Your task to perform on an android device: turn on airplane mode Image 0: 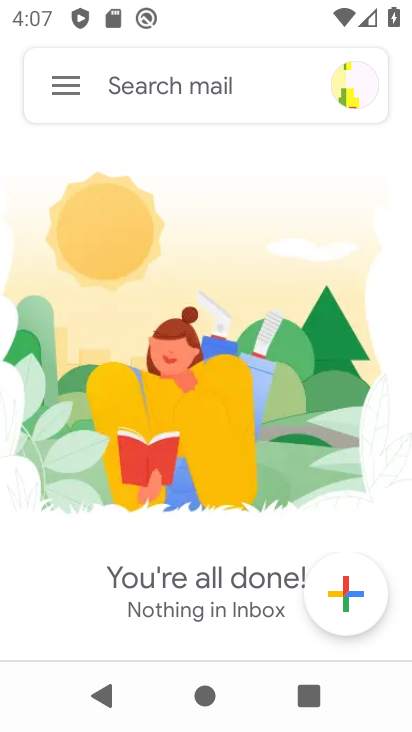
Step 0: press home button
Your task to perform on an android device: turn on airplane mode Image 1: 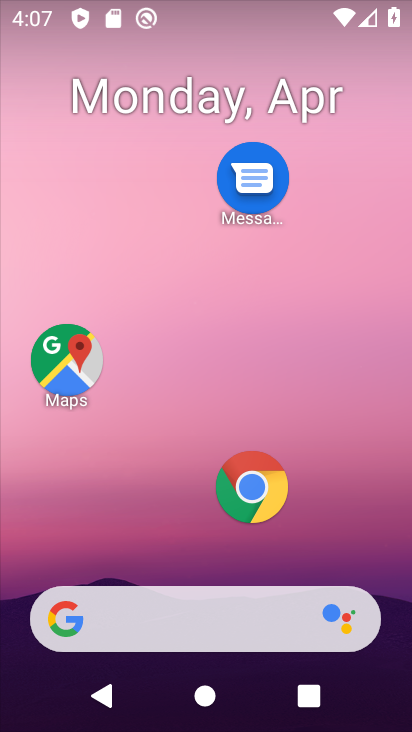
Step 1: drag from (168, 526) to (284, 0)
Your task to perform on an android device: turn on airplane mode Image 2: 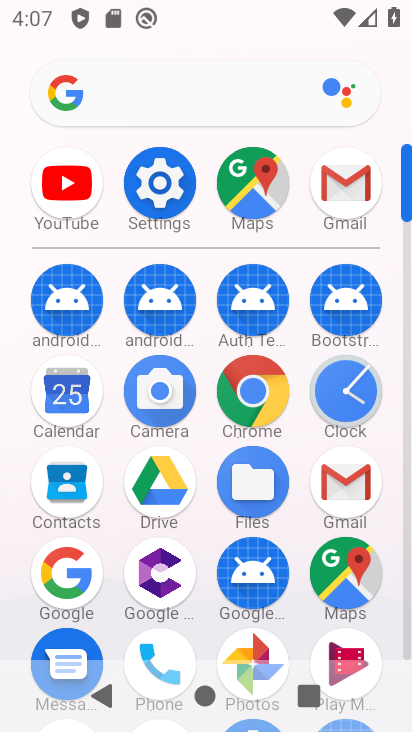
Step 2: click (158, 203)
Your task to perform on an android device: turn on airplane mode Image 3: 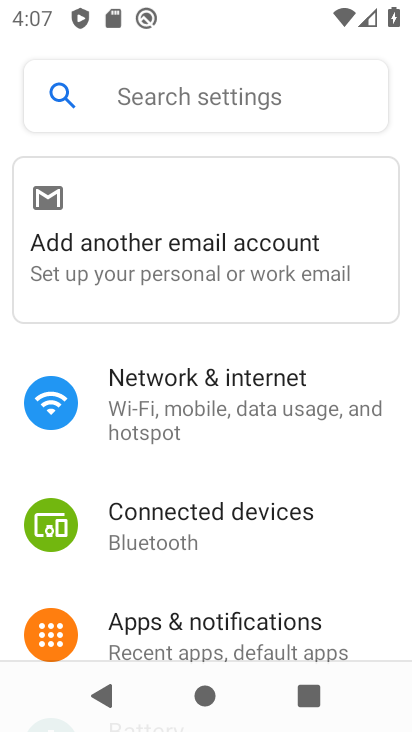
Step 3: click (176, 391)
Your task to perform on an android device: turn on airplane mode Image 4: 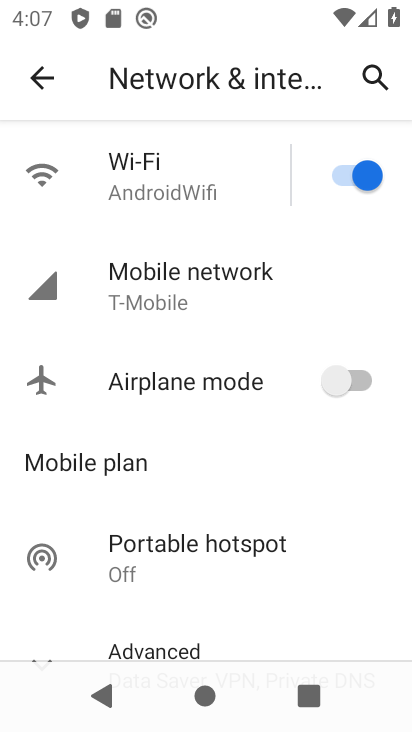
Step 4: click (193, 378)
Your task to perform on an android device: turn on airplane mode Image 5: 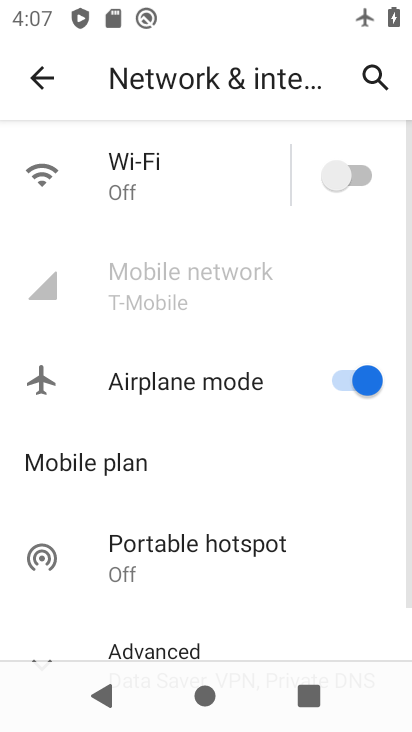
Step 5: task complete